Your task to perform on an android device: Open location settings Image 0: 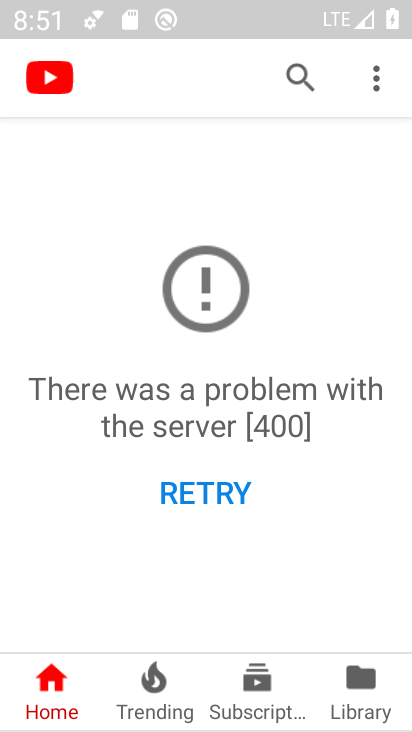
Step 0: press home button
Your task to perform on an android device: Open location settings Image 1: 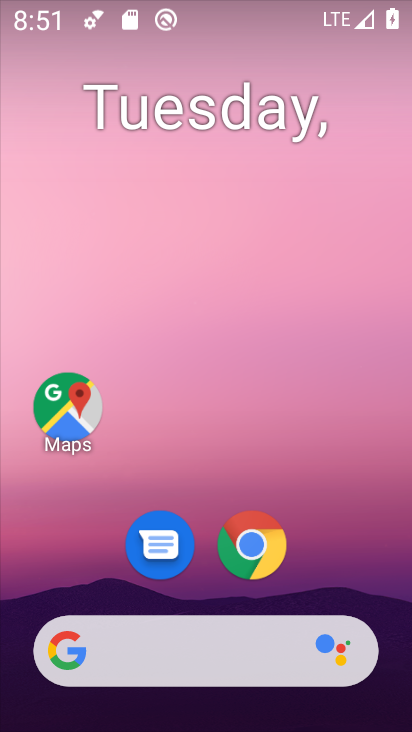
Step 1: drag from (162, 534) to (70, 12)
Your task to perform on an android device: Open location settings Image 2: 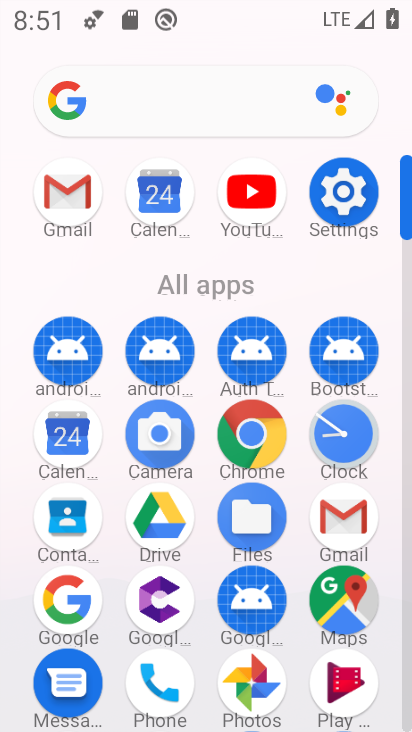
Step 2: click (340, 212)
Your task to perform on an android device: Open location settings Image 3: 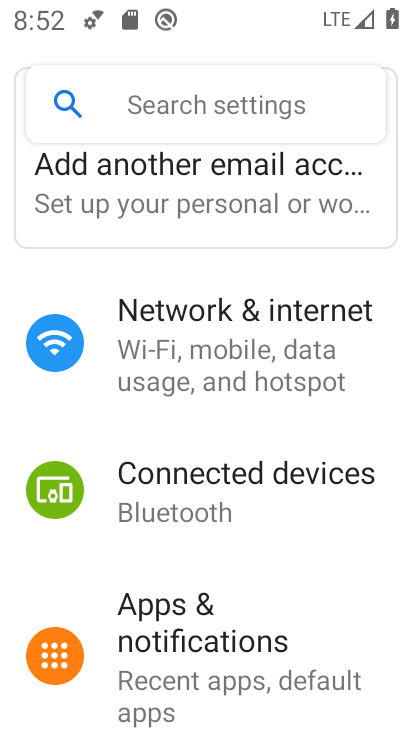
Step 3: drag from (183, 603) to (150, 120)
Your task to perform on an android device: Open location settings Image 4: 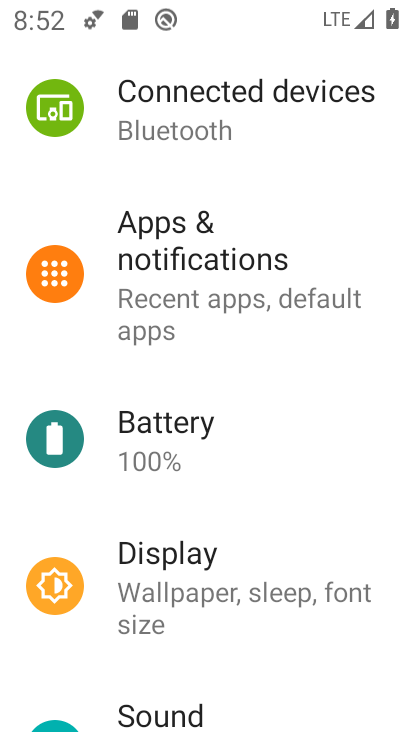
Step 4: drag from (156, 610) to (125, 233)
Your task to perform on an android device: Open location settings Image 5: 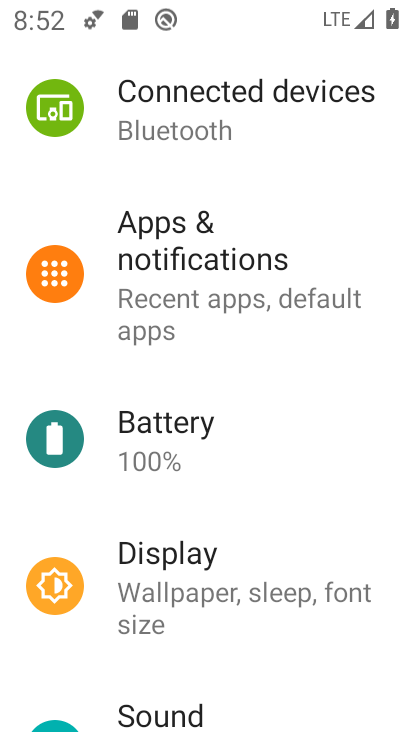
Step 5: drag from (122, 520) to (207, 53)
Your task to perform on an android device: Open location settings Image 6: 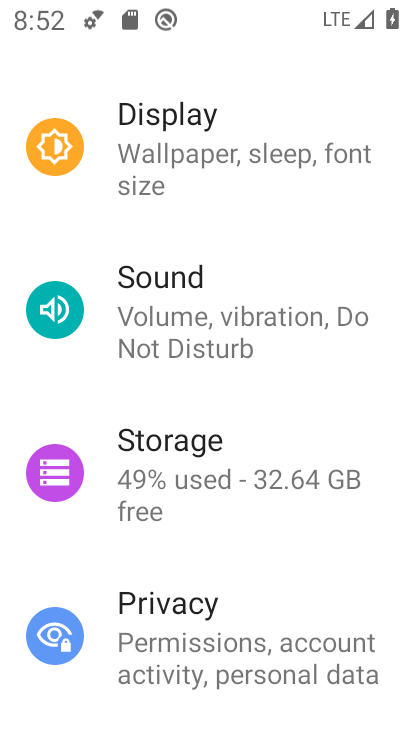
Step 6: drag from (172, 588) to (207, 158)
Your task to perform on an android device: Open location settings Image 7: 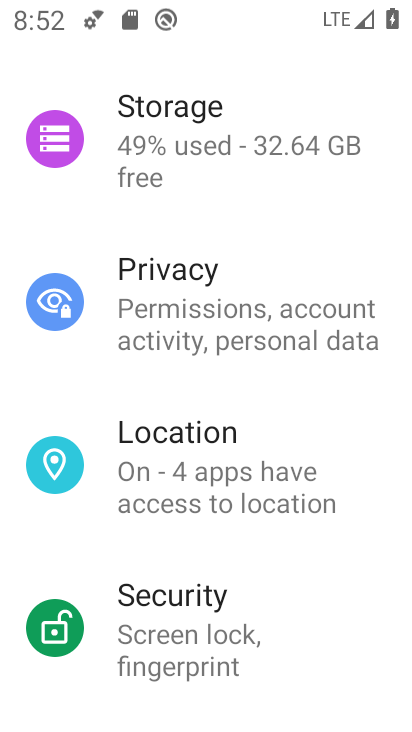
Step 7: click (202, 472)
Your task to perform on an android device: Open location settings Image 8: 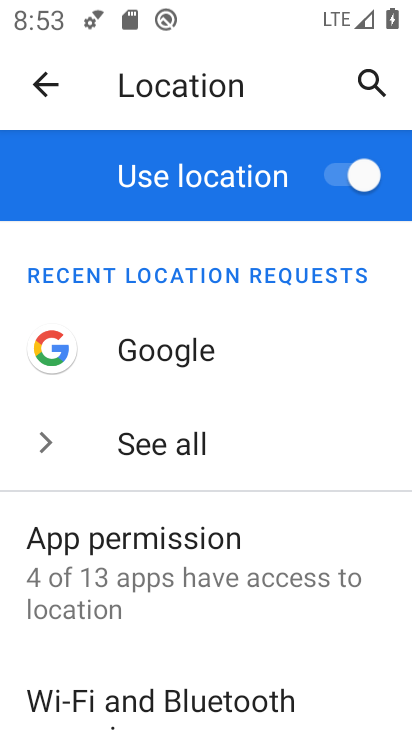
Step 8: task complete